Your task to perform on an android device: search for starred emails in the gmail app Image 0: 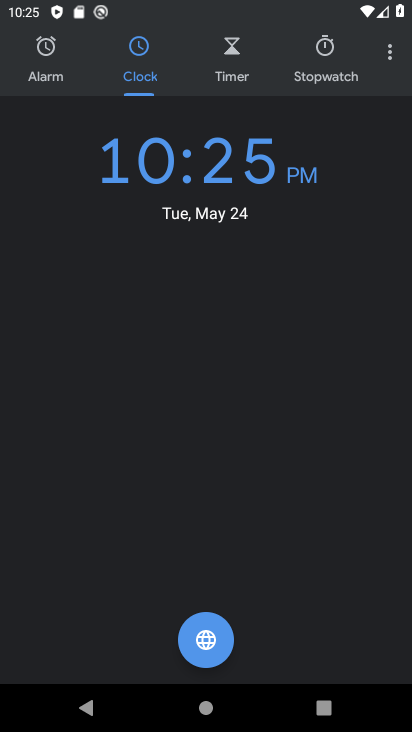
Step 0: press home button
Your task to perform on an android device: search for starred emails in the gmail app Image 1: 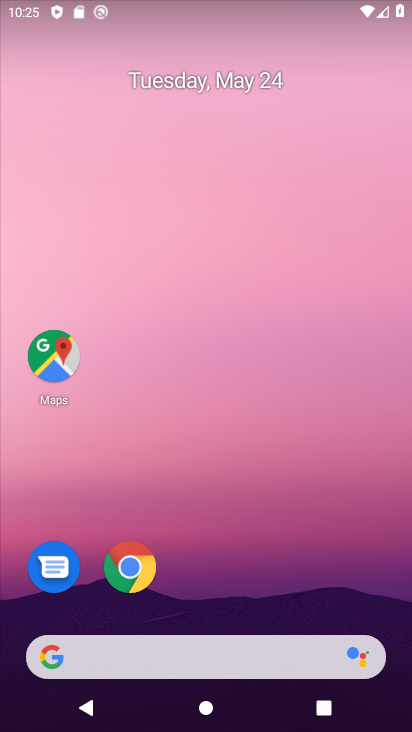
Step 1: drag from (391, 644) to (369, 262)
Your task to perform on an android device: search for starred emails in the gmail app Image 2: 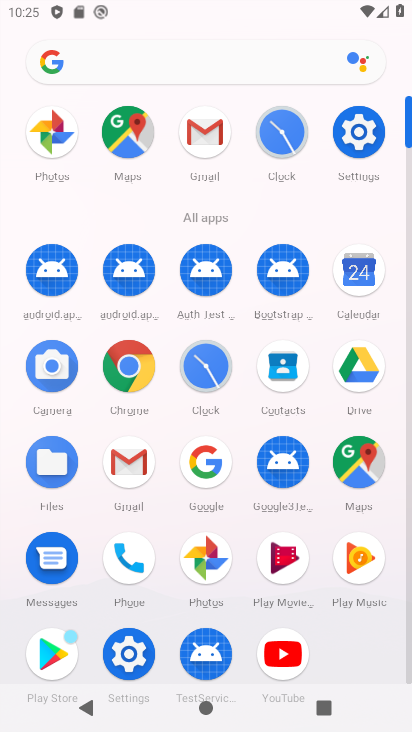
Step 2: click (135, 455)
Your task to perform on an android device: search for starred emails in the gmail app Image 3: 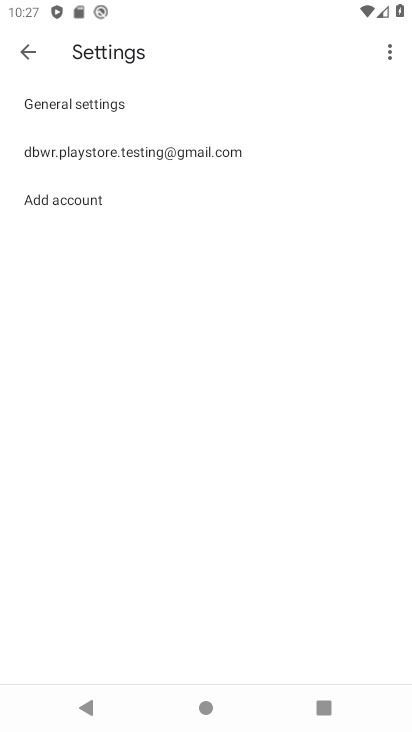
Step 3: press back button
Your task to perform on an android device: search for starred emails in the gmail app Image 4: 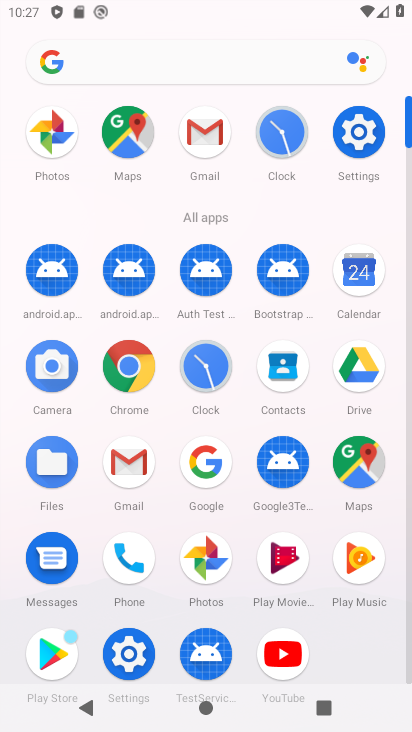
Step 4: click (138, 467)
Your task to perform on an android device: search for starred emails in the gmail app Image 5: 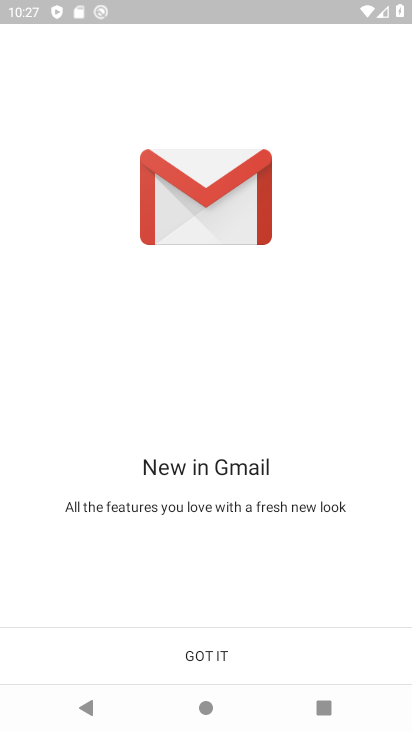
Step 5: click (203, 647)
Your task to perform on an android device: search for starred emails in the gmail app Image 6: 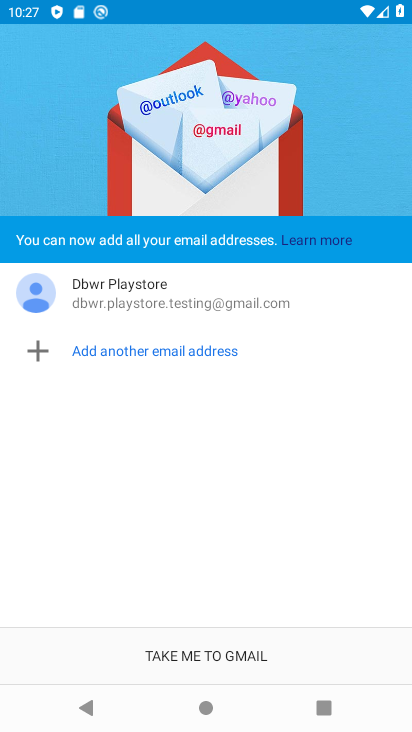
Step 6: click (203, 647)
Your task to perform on an android device: search for starred emails in the gmail app Image 7: 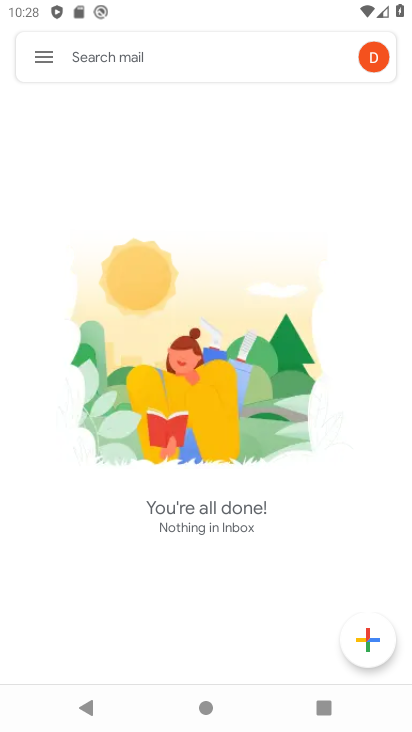
Step 7: click (37, 61)
Your task to perform on an android device: search for starred emails in the gmail app Image 8: 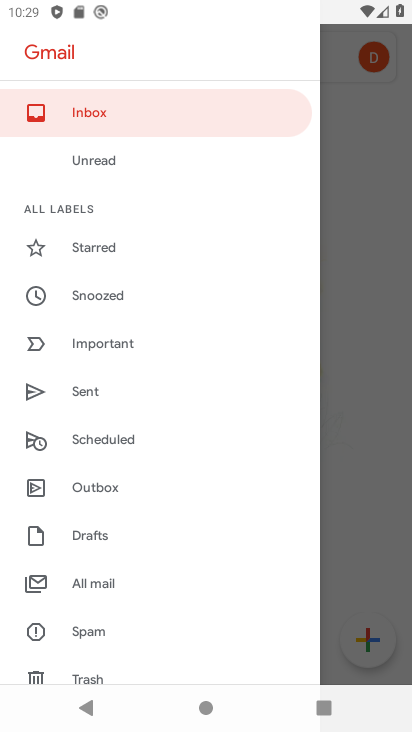
Step 8: click (85, 246)
Your task to perform on an android device: search for starred emails in the gmail app Image 9: 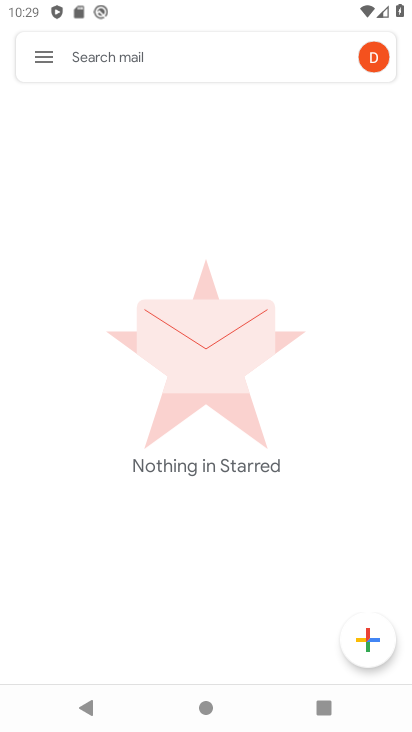
Step 9: task complete